Your task to perform on an android device: open app "DoorDash - Dasher" (install if not already installed) Image 0: 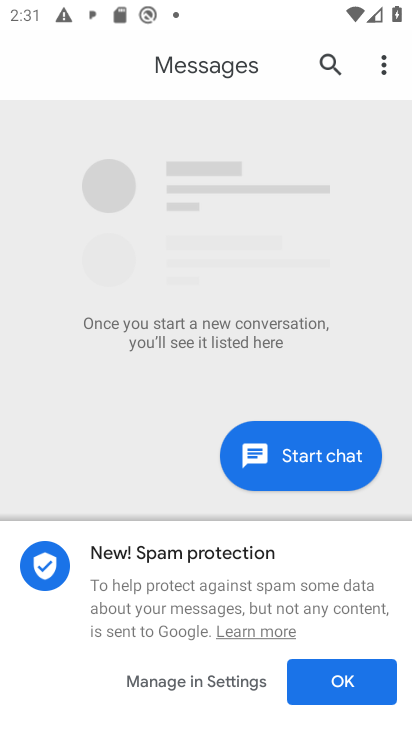
Step 0: press home button
Your task to perform on an android device: open app "DoorDash - Dasher" (install if not already installed) Image 1: 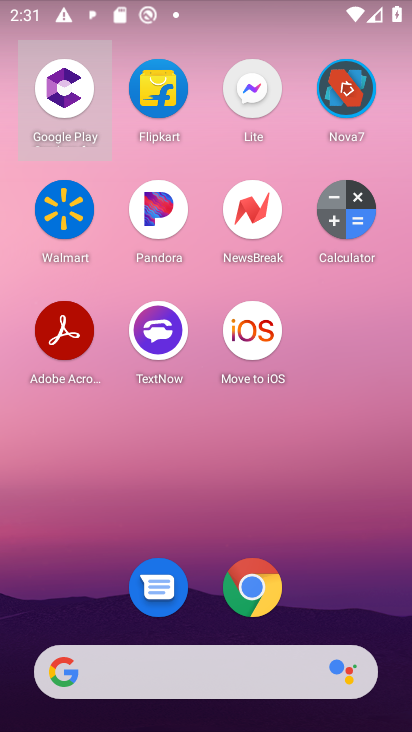
Step 1: drag from (226, 555) to (247, 87)
Your task to perform on an android device: open app "DoorDash - Dasher" (install if not already installed) Image 2: 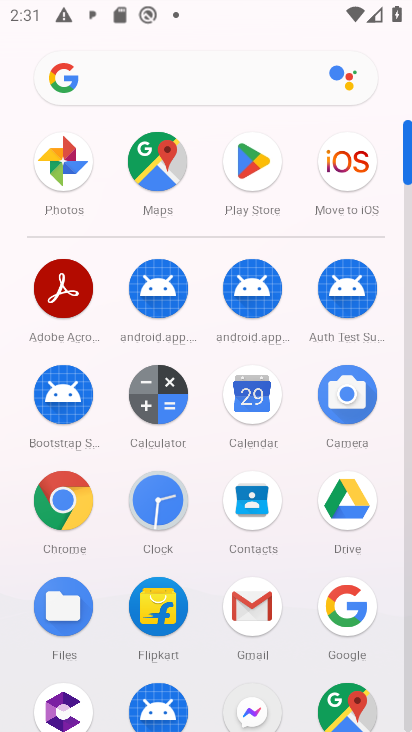
Step 2: click (264, 169)
Your task to perform on an android device: open app "DoorDash - Dasher" (install if not already installed) Image 3: 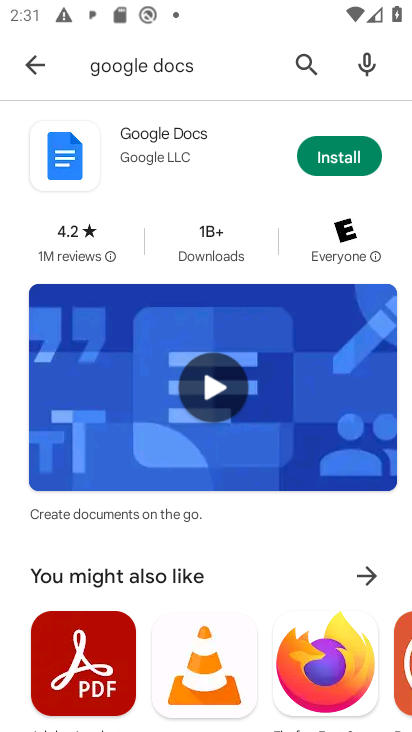
Step 3: click (302, 59)
Your task to perform on an android device: open app "DoorDash - Dasher" (install if not already installed) Image 4: 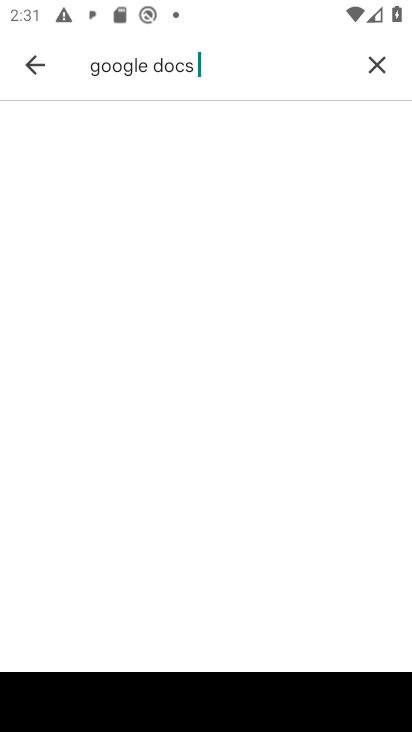
Step 4: click (371, 67)
Your task to perform on an android device: open app "DoorDash - Dasher" (install if not already installed) Image 5: 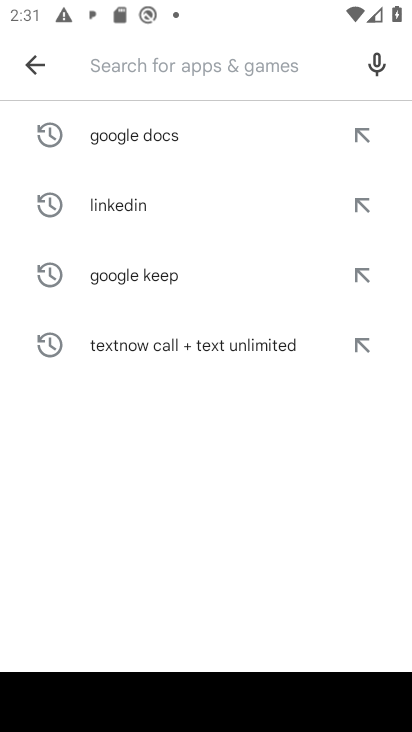
Step 5: click (308, 67)
Your task to perform on an android device: open app "DoorDash - Dasher" (install if not already installed) Image 6: 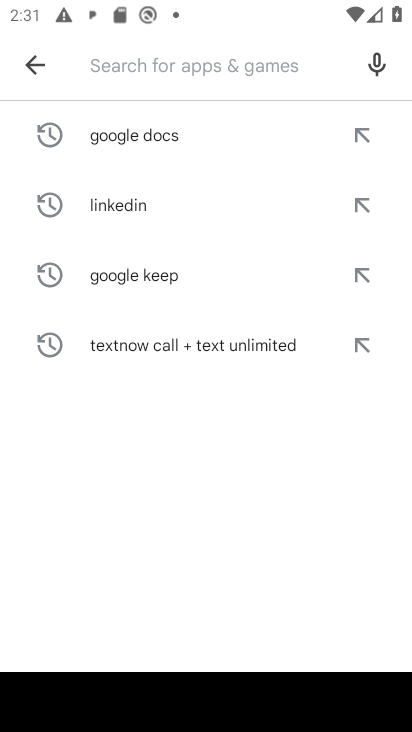
Step 6: type "DoorDash - Dasher"
Your task to perform on an android device: open app "DoorDash - Dasher" (install if not already installed) Image 7: 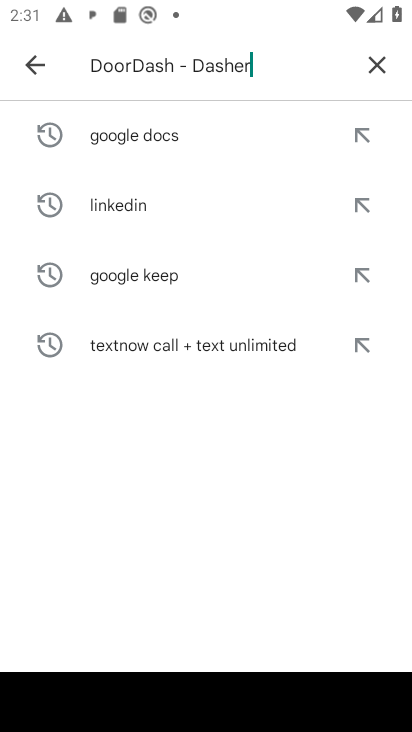
Step 7: type ""
Your task to perform on an android device: open app "DoorDash - Dasher" (install if not already installed) Image 8: 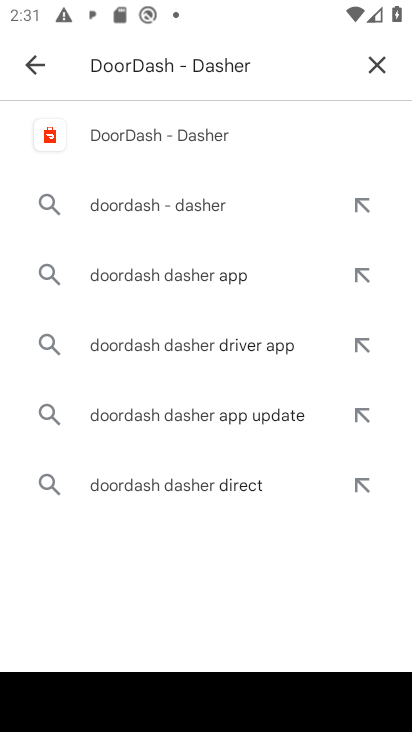
Step 8: click (236, 142)
Your task to perform on an android device: open app "DoorDash - Dasher" (install if not already installed) Image 9: 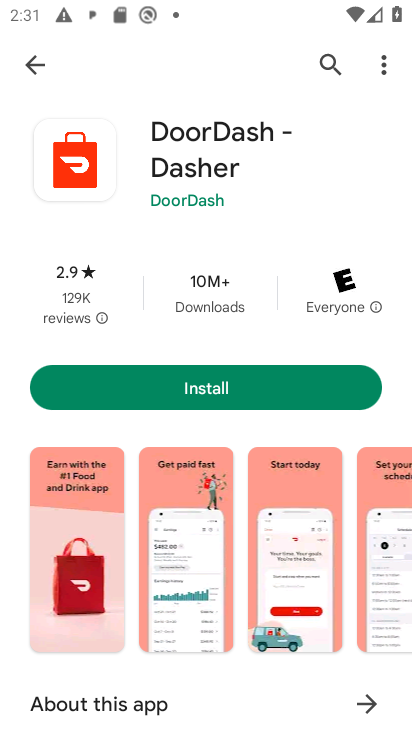
Step 9: click (226, 375)
Your task to perform on an android device: open app "DoorDash - Dasher" (install if not already installed) Image 10: 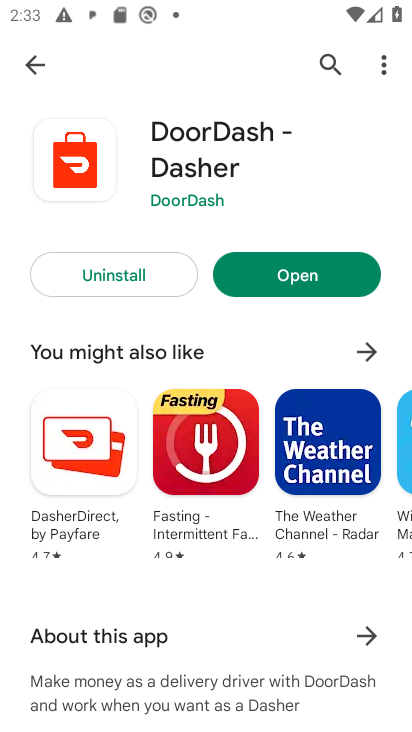
Step 10: click (353, 283)
Your task to perform on an android device: open app "DoorDash - Dasher" (install if not already installed) Image 11: 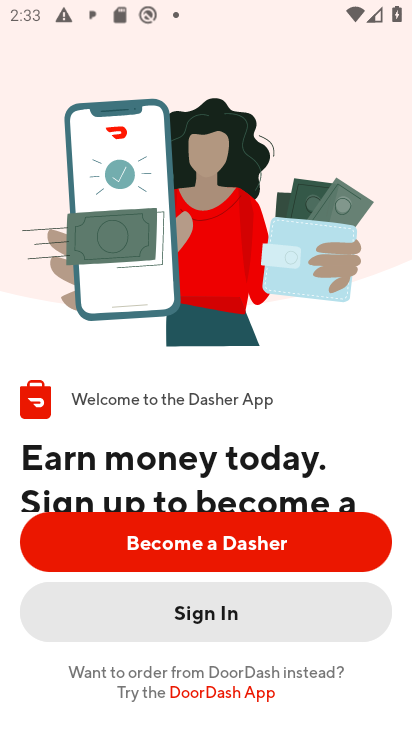
Step 11: task complete